Your task to perform on an android device: Is it going to rain today? Image 0: 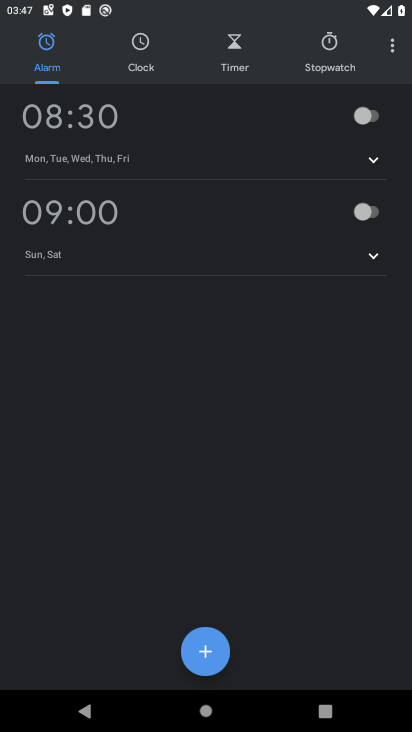
Step 0: press home button
Your task to perform on an android device: Is it going to rain today? Image 1: 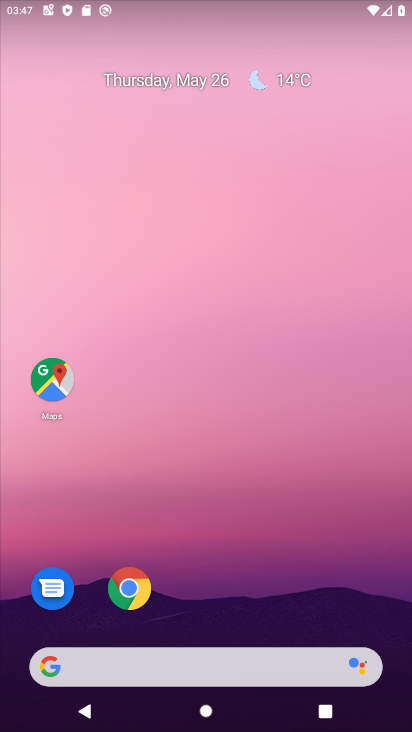
Step 1: drag from (293, 597) to (279, 145)
Your task to perform on an android device: Is it going to rain today? Image 2: 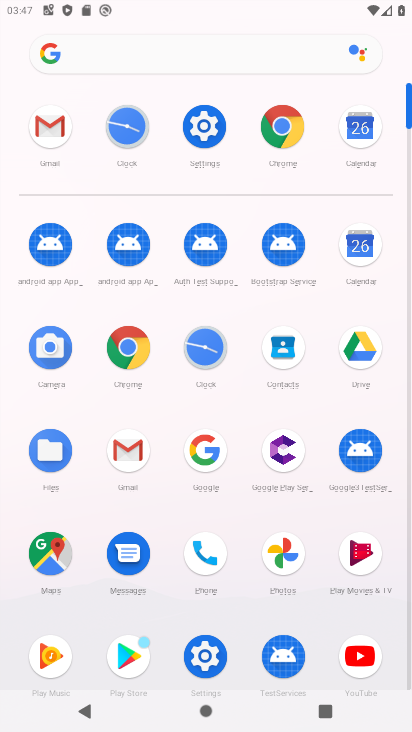
Step 2: click (231, 48)
Your task to perform on an android device: Is it going to rain today? Image 3: 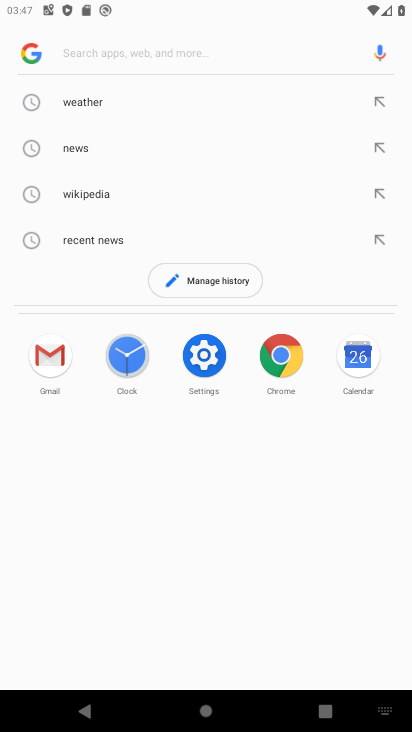
Step 3: click (116, 111)
Your task to perform on an android device: Is it going to rain today? Image 4: 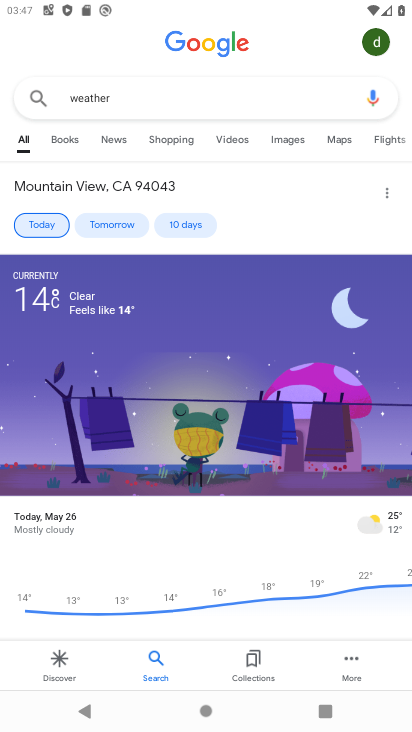
Step 4: task complete